Your task to perform on an android device: change notification settings in the gmail app Image 0: 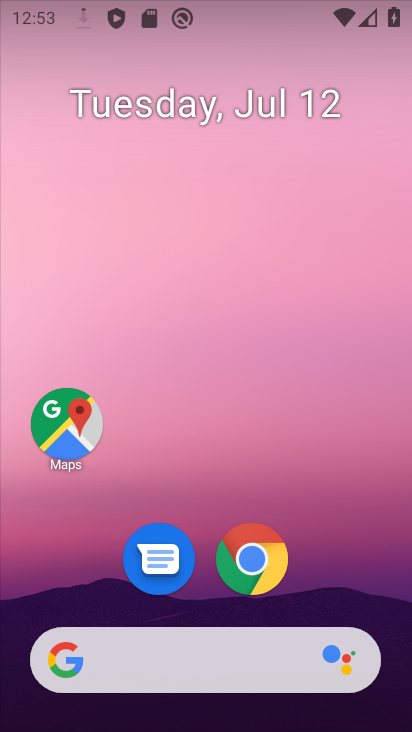
Step 0: drag from (350, 608) to (363, 176)
Your task to perform on an android device: change notification settings in the gmail app Image 1: 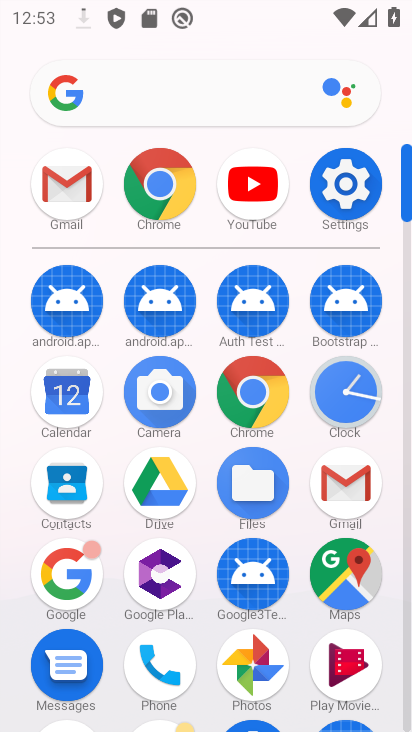
Step 1: click (359, 478)
Your task to perform on an android device: change notification settings in the gmail app Image 2: 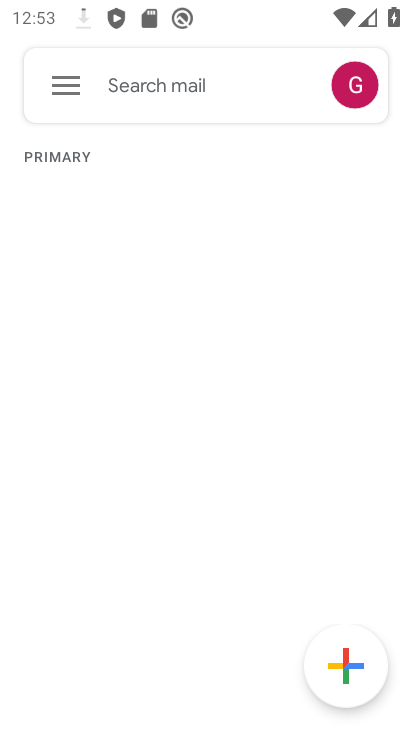
Step 2: click (59, 92)
Your task to perform on an android device: change notification settings in the gmail app Image 3: 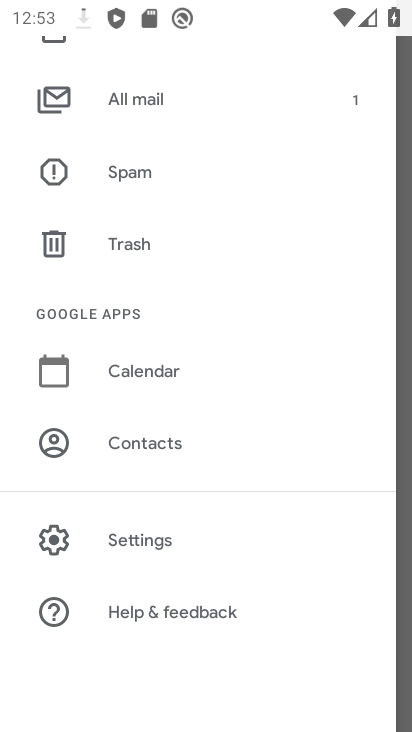
Step 3: drag from (268, 228) to (282, 303)
Your task to perform on an android device: change notification settings in the gmail app Image 4: 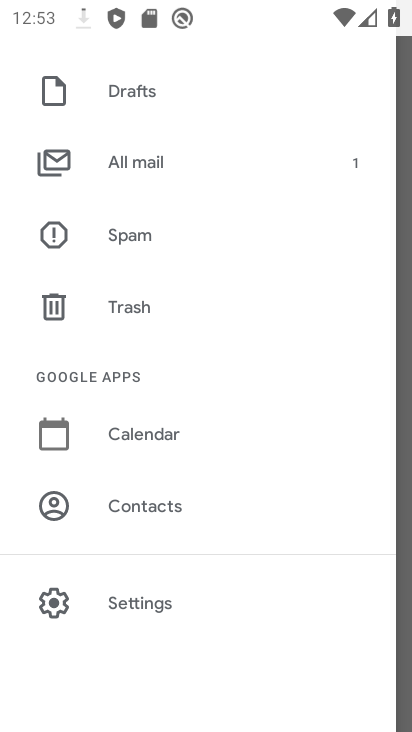
Step 4: drag from (296, 188) to (296, 293)
Your task to perform on an android device: change notification settings in the gmail app Image 5: 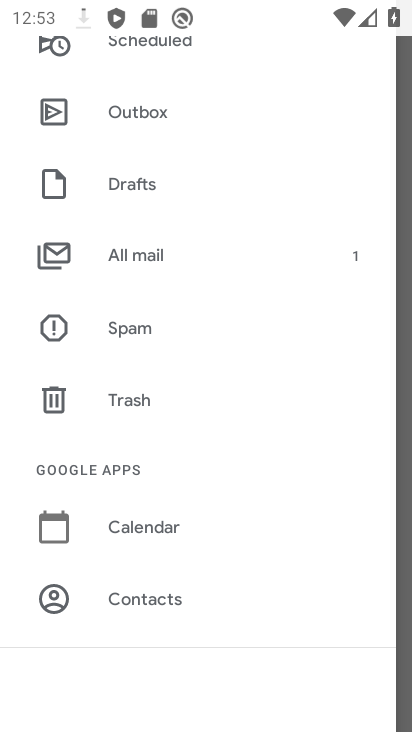
Step 5: drag from (288, 189) to (291, 287)
Your task to perform on an android device: change notification settings in the gmail app Image 6: 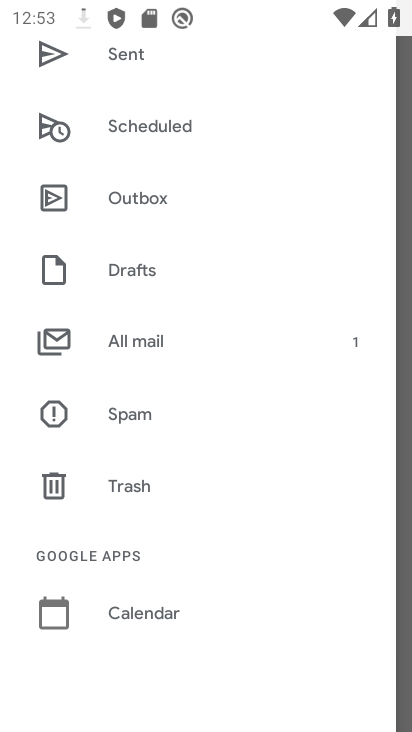
Step 6: drag from (286, 191) to (298, 280)
Your task to perform on an android device: change notification settings in the gmail app Image 7: 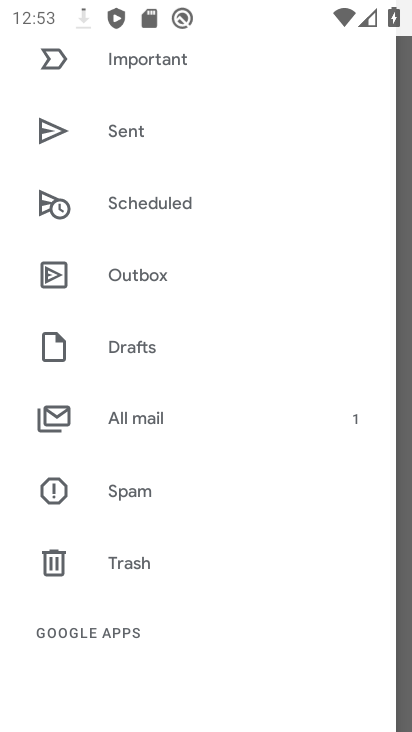
Step 7: drag from (289, 182) to (290, 279)
Your task to perform on an android device: change notification settings in the gmail app Image 8: 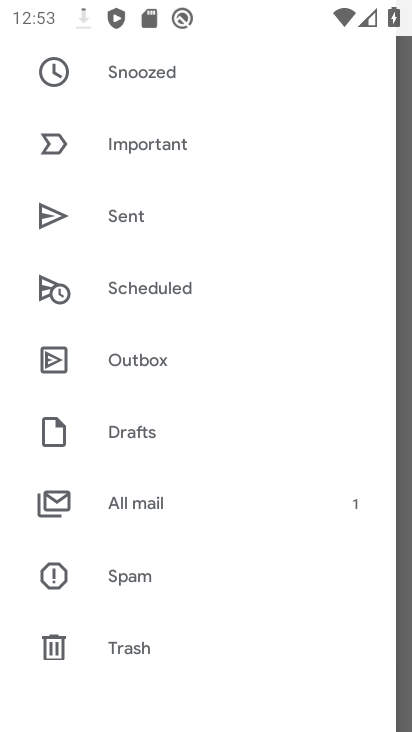
Step 8: drag from (294, 172) to (305, 286)
Your task to perform on an android device: change notification settings in the gmail app Image 9: 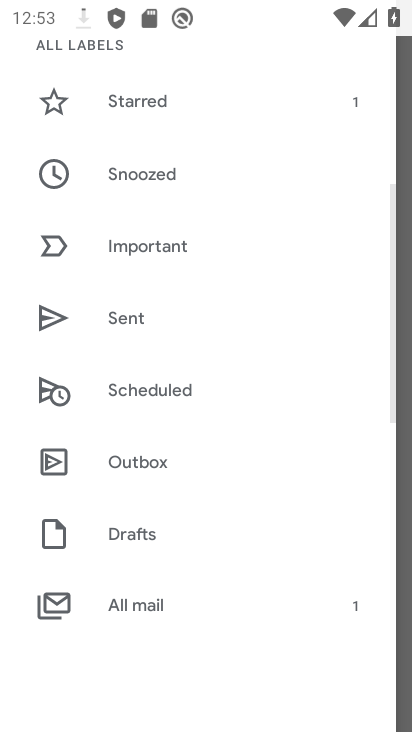
Step 9: drag from (293, 166) to (307, 278)
Your task to perform on an android device: change notification settings in the gmail app Image 10: 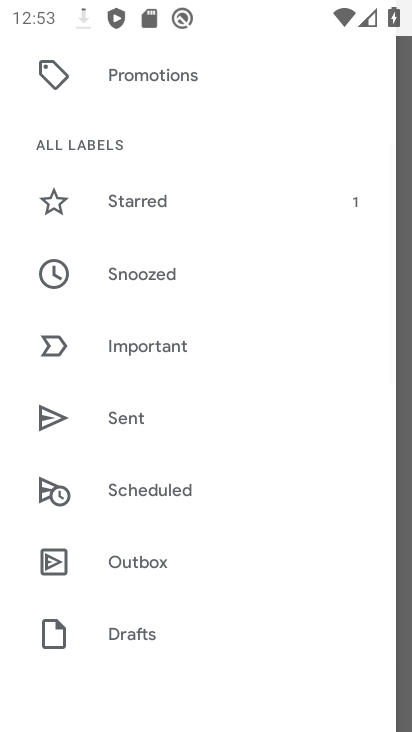
Step 10: drag from (289, 147) to (292, 335)
Your task to perform on an android device: change notification settings in the gmail app Image 11: 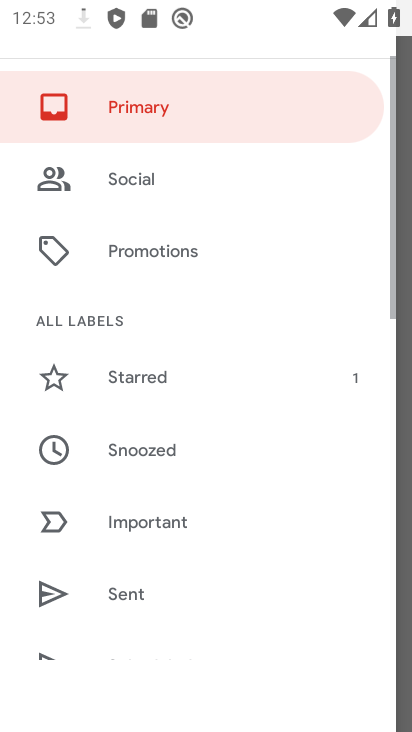
Step 11: drag from (279, 438) to (275, 312)
Your task to perform on an android device: change notification settings in the gmail app Image 12: 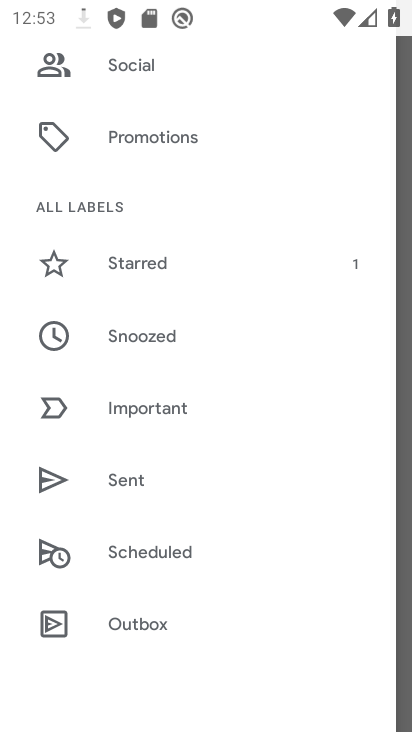
Step 12: drag from (268, 452) to (281, 338)
Your task to perform on an android device: change notification settings in the gmail app Image 13: 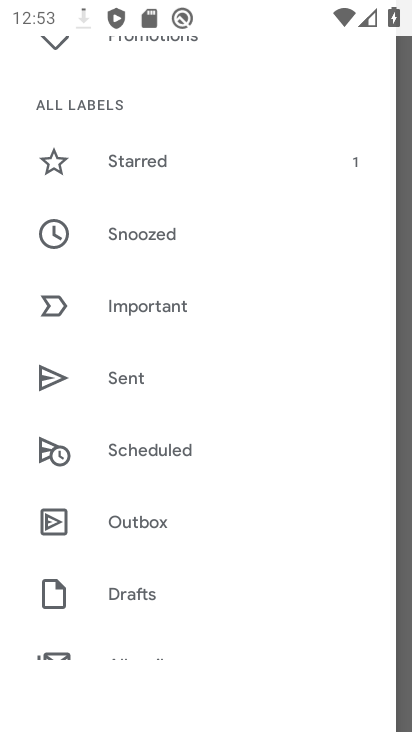
Step 13: drag from (318, 523) to (326, 381)
Your task to perform on an android device: change notification settings in the gmail app Image 14: 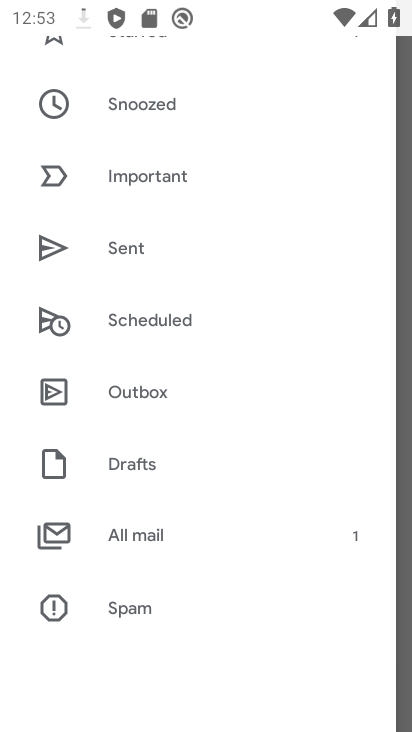
Step 14: drag from (316, 593) to (329, 482)
Your task to perform on an android device: change notification settings in the gmail app Image 15: 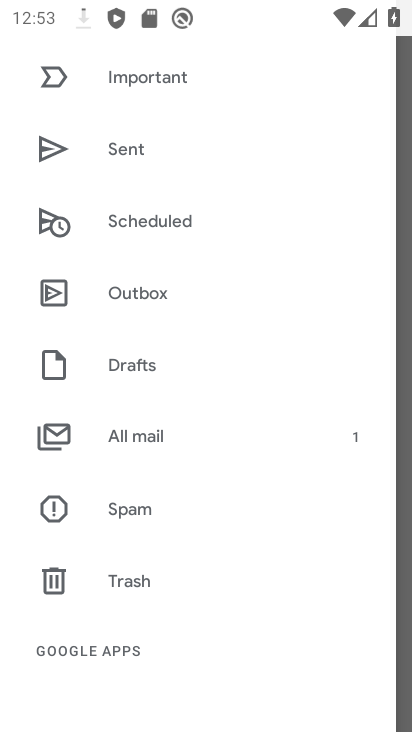
Step 15: drag from (302, 578) to (305, 426)
Your task to perform on an android device: change notification settings in the gmail app Image 16: 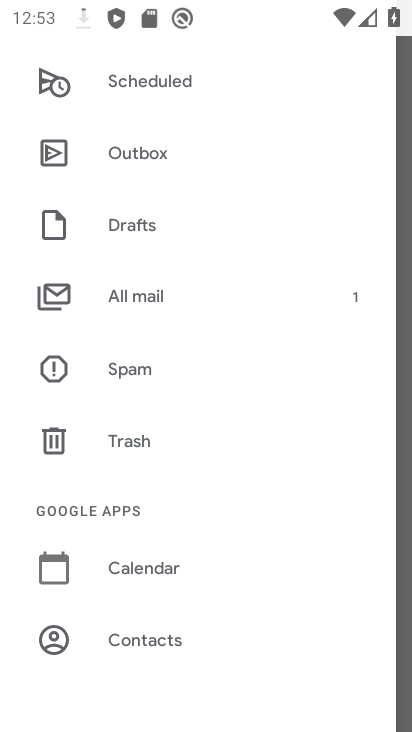
Step 16: drag from (289, 588) to (295, 430)
Your task to perform on an android device: change notification settings in the gmail app Image 17: 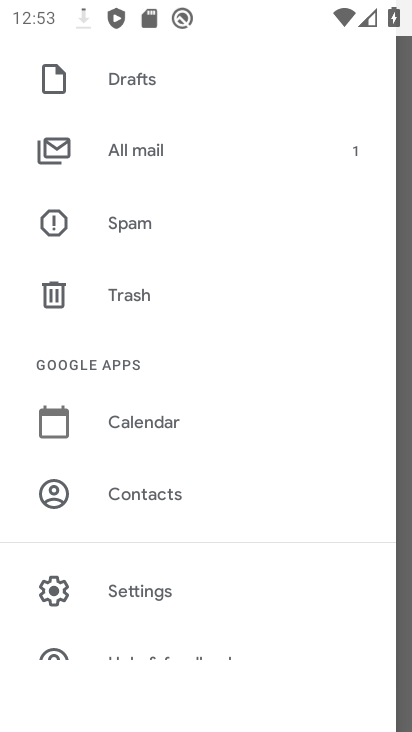
Step 17: drag from (273, 579) to (271, 464)
Your task to perform on an android device: change notification settings in the gmail app Image 18: 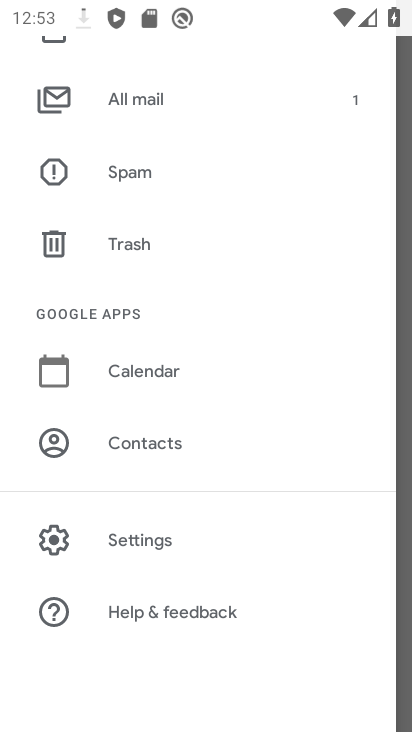
Step 18: click (142, 549)
Your task to perform on an android device: change notification settings in the gmail app Image 19: 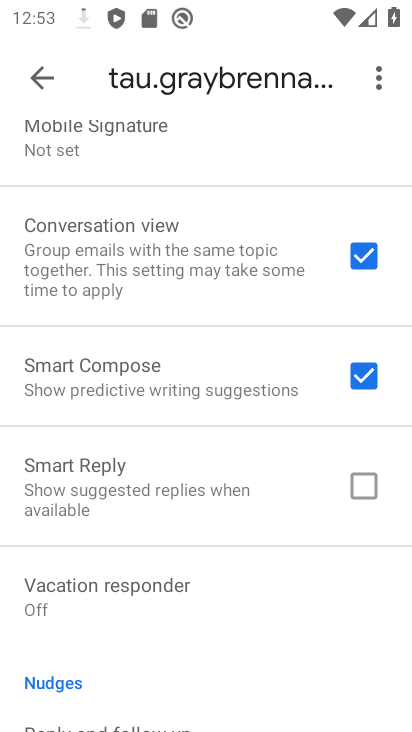
Step 19: drag from (299, 203) to (308, 319)
Your task to perform on an android device: change notification settings in the gmail app Image 20: 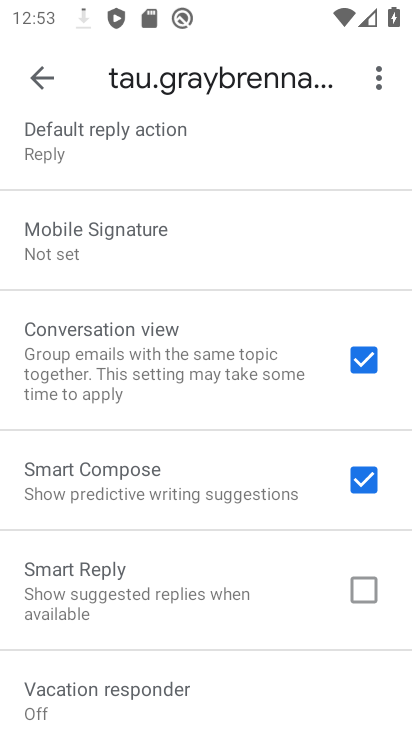
Step 20: drag from (309, 209) to (303, 333)
Your task to perform on an android device: change notification settings in the gmail app Image 21: 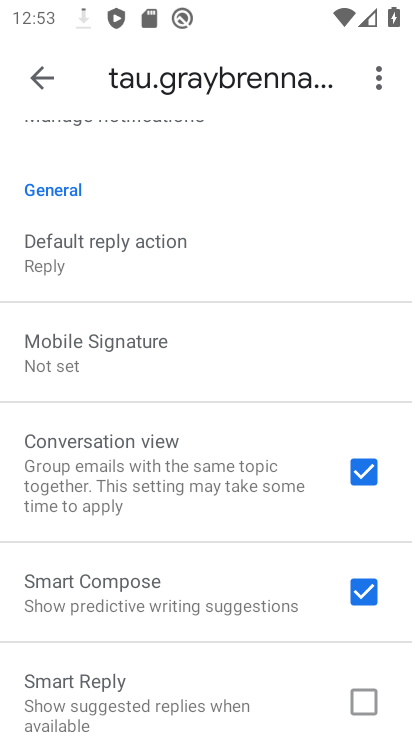
Step 21: drag from (267, 216) to (275, 363)
Your task to perform on an android device: change notification settings in the gmail app Image 22: 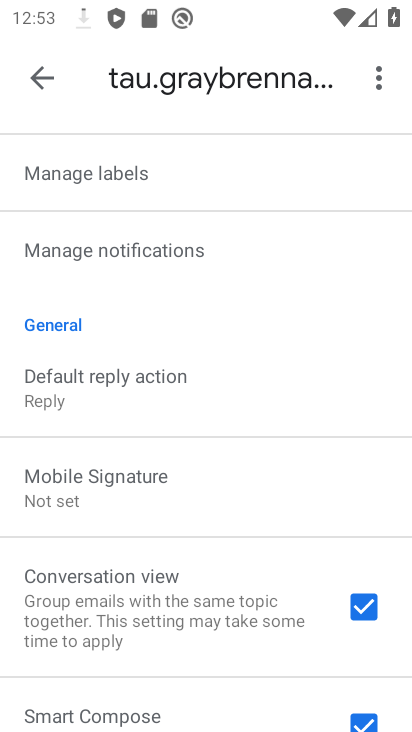
Step 22: drag from (286, 187) to (292, 338)
Your task to perform on an android device: change notification settings in the gmail app Image 23: 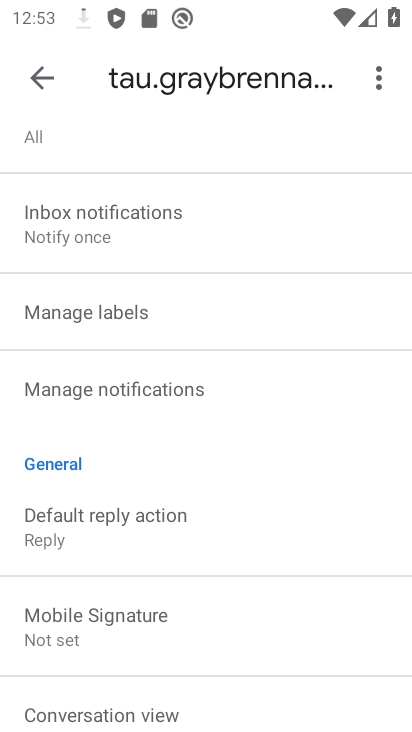
Step 23: drag from (284, 207) to (291, 353)
Your task to perform on an android device: change notification settings in the gmail app Image 24: 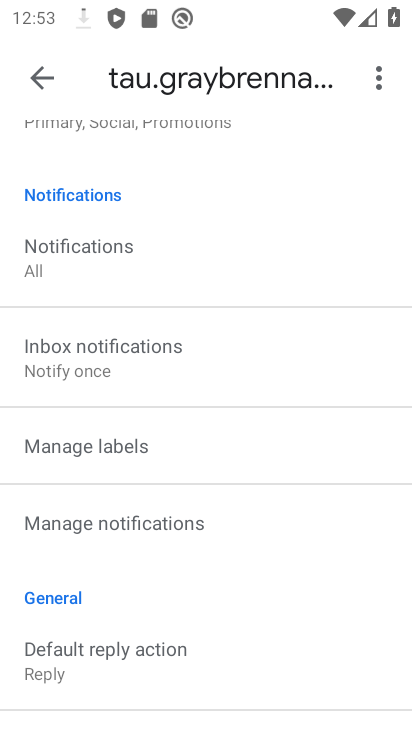
Step 24: drag from (304, 190) to (303, 322)
Your task to perform on an android device: change notification settings in the gmail app Image 25: 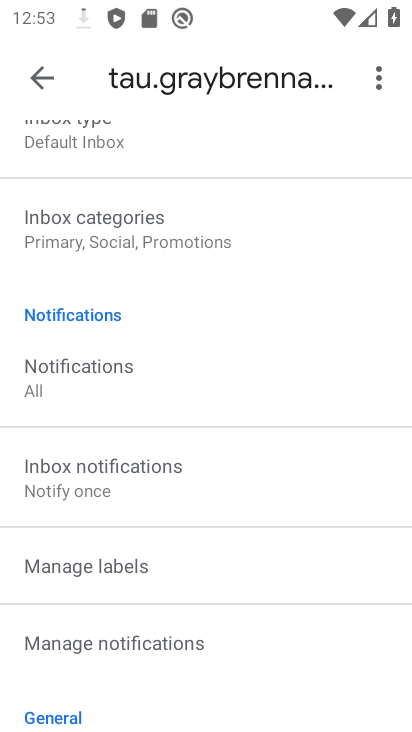
Step 25: drag from (306, 143) to (307, 287)
Your task to perform on an android device: change notification settings in the gmail app Image 26: 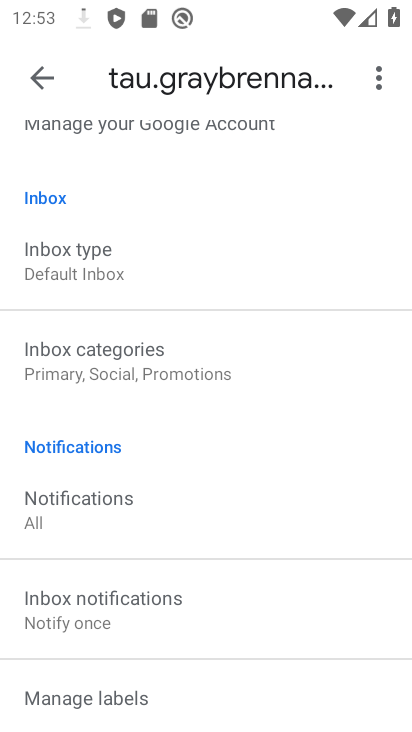
Step 26: drag from (294, 197) to (284, 366)
Your task to perform on an android device: change notification settings in the gmail app Image 27: 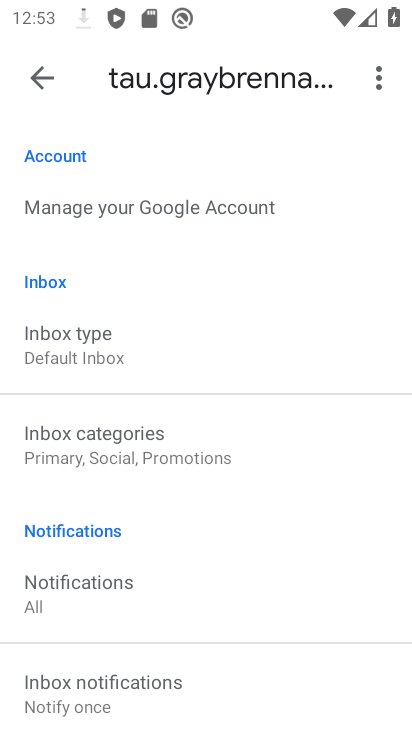
Step 27: drag from (295, 457) to (293, 341)
Your task to perform on an android device: change notification settings in the gmail app Image 28: 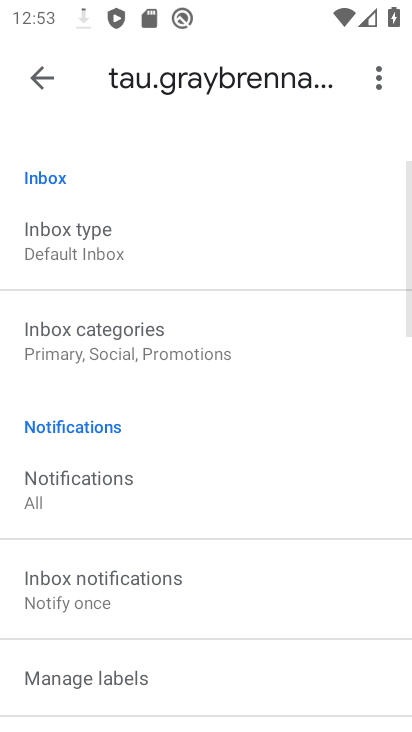
Step 28: drag from (284, 487) to (300, 352)
Your task to perform on an android device: change notification settings in the gmail app Image 29: 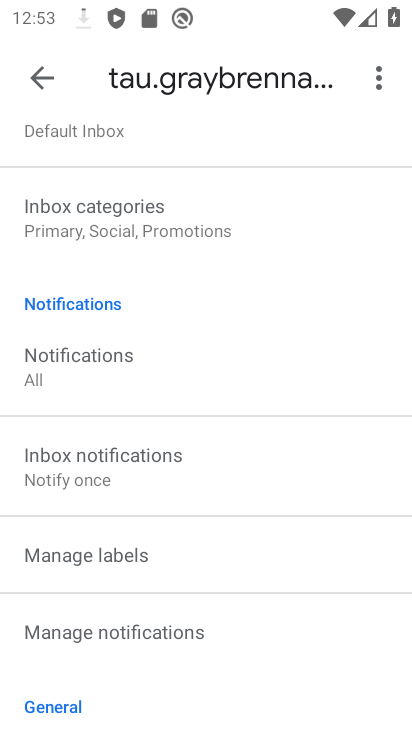
Step 29: drag from (267, 462) to (267, 319)
Your task to perform on an android device: change notification settings in the gmail app Image 30: 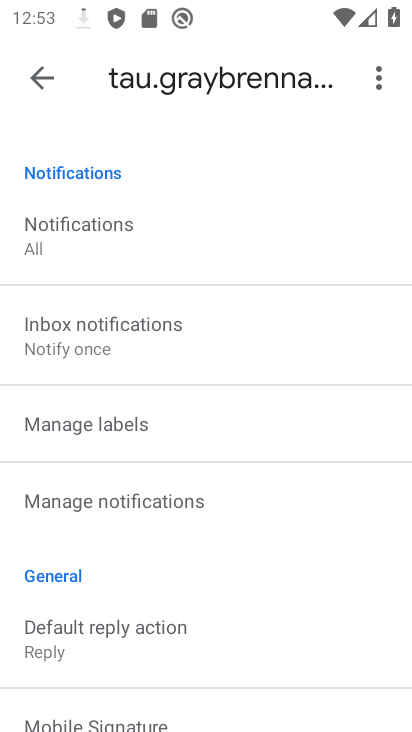
Step 30: click (196, 233)
Your task to perform on an android device: change notification settings in the gmail app Image 31: 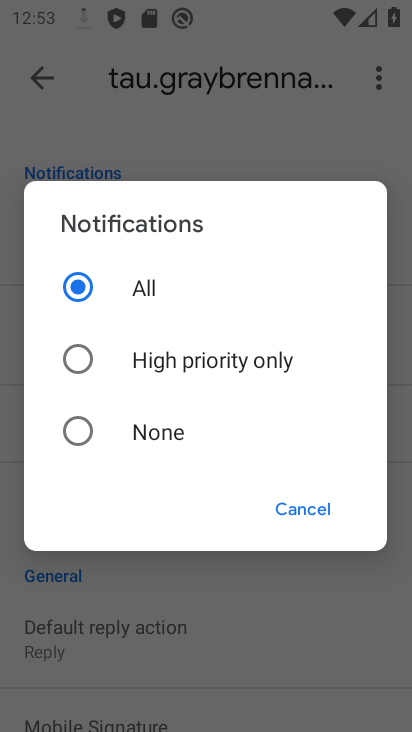
Step 31: click (195, 366)
Your task to perform on an android device: change notification settings in the gmail app Image 32: 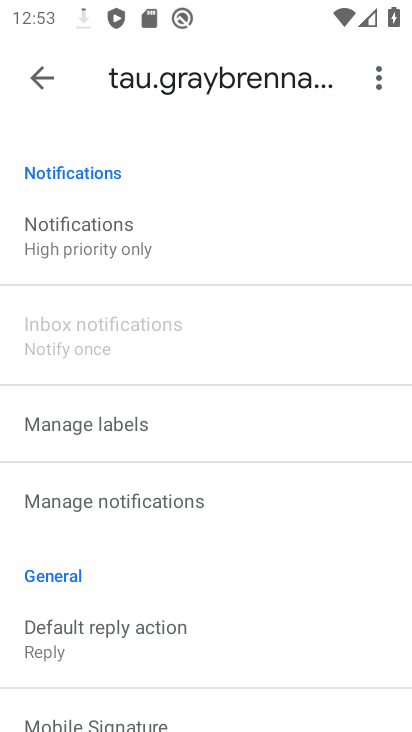
Step 32: task complete